Your task to perform on an android device: change alarm snooze length Image 0: 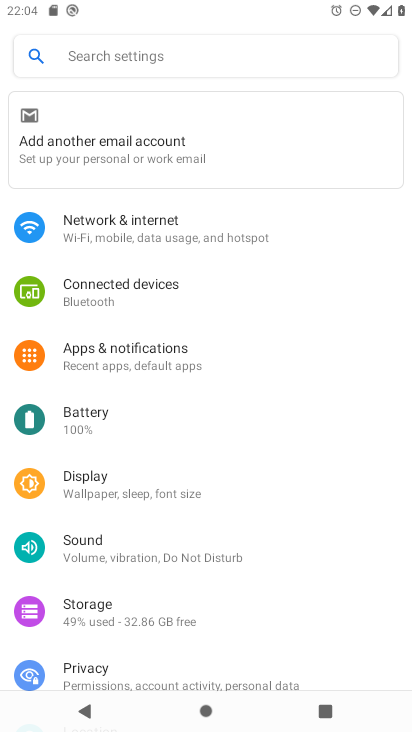
Step 0: press home button
Your task to perform on an android device: change alarm snooze length Image 1: 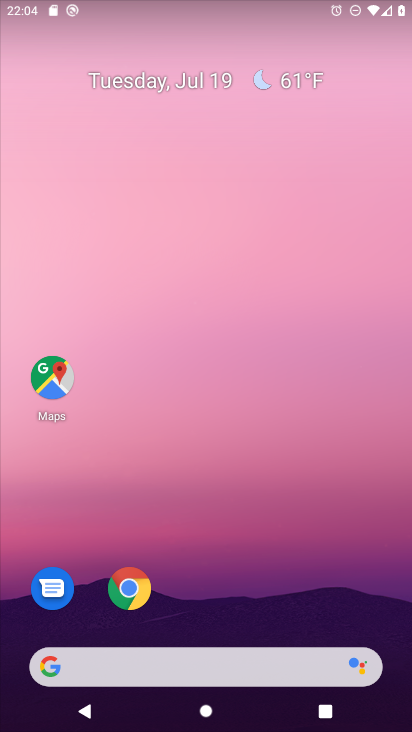
Step 1: drag from (223, 622) to (215, 33)
Your task to perform on an android device: change alarm snooze length Image 2: 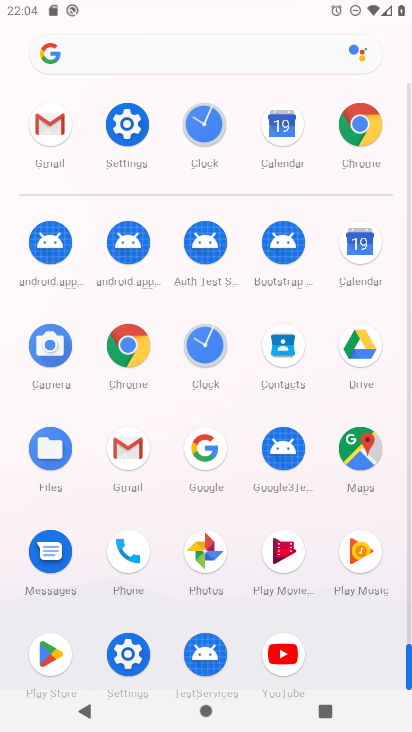
Step 2: click (206, 334)
Your task to perform on an android device: change alarm snooze length Image 3: 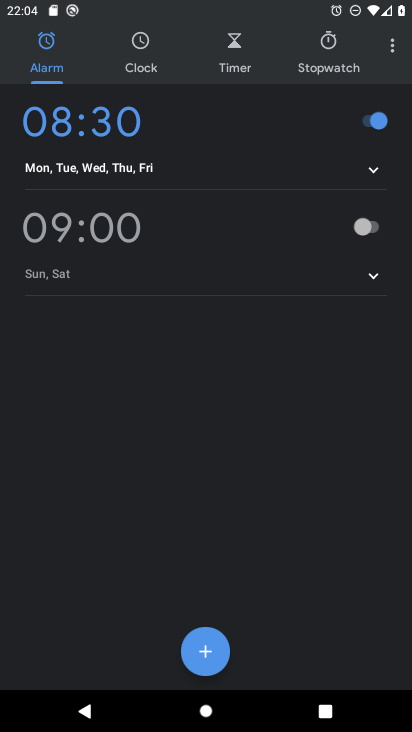
Step 3: click (392, 47)
Your task to perform on an android device: change alarm snooze length Image 4: 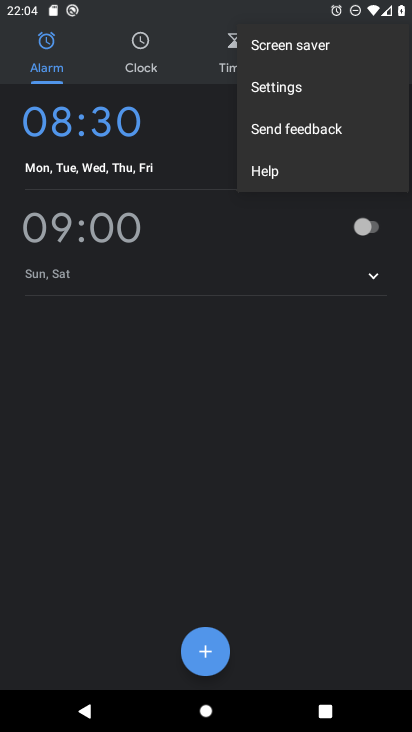
Step 4: click (317, 87)
Your task to perform on an android device: change alarm snooze length Image 5: 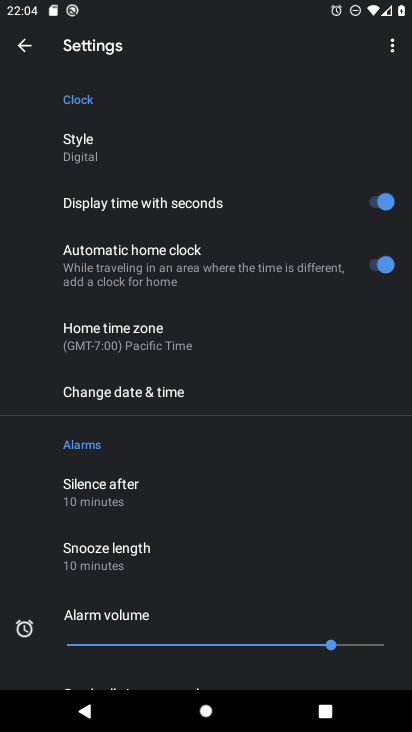
Step 5: click (161, 551)
Your task to perform on an android device: change alarm snooze length Image 6: 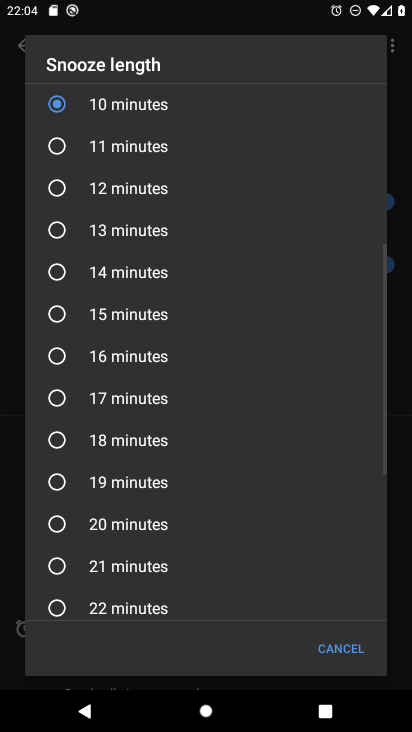
Step 6: drag from (93, 129) to (80, 581)
Your task to perform on an android device: change alarm snooze length Image 7: 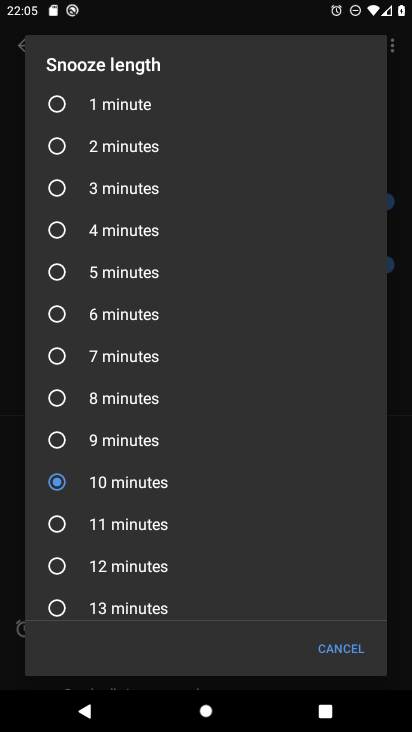
Step 7: click (61, 271)
Your task to perform on an android device: change alarm snooze length Image 8: 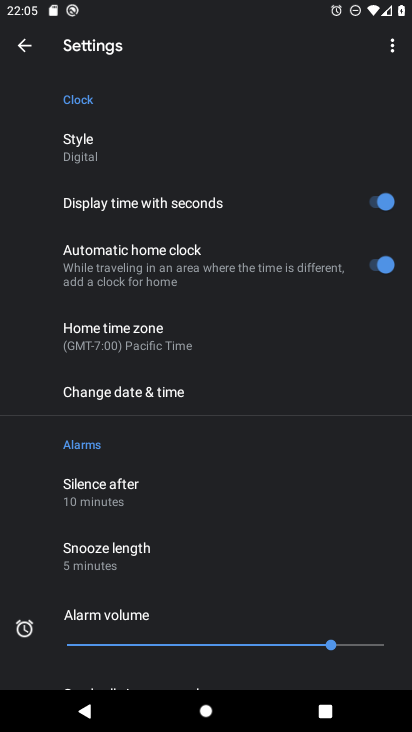
Step 8: task complete